Your task to perform on an android device: Open Google Chrome Image 0: 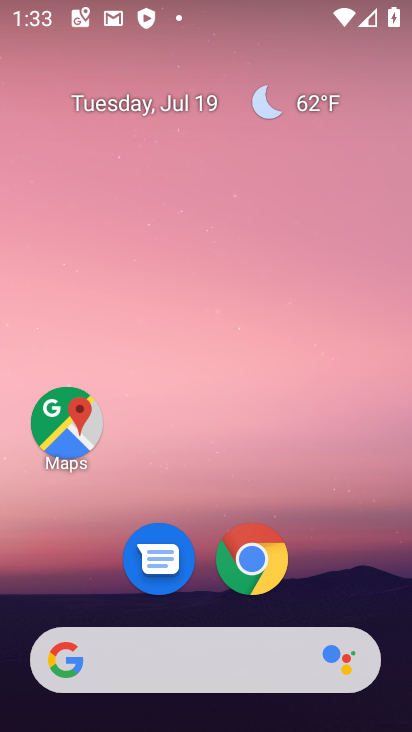
Step 0: drag from (210, 669) to (363, 175)
Your task to perform on an android device: Open Google Chrome Image 1: 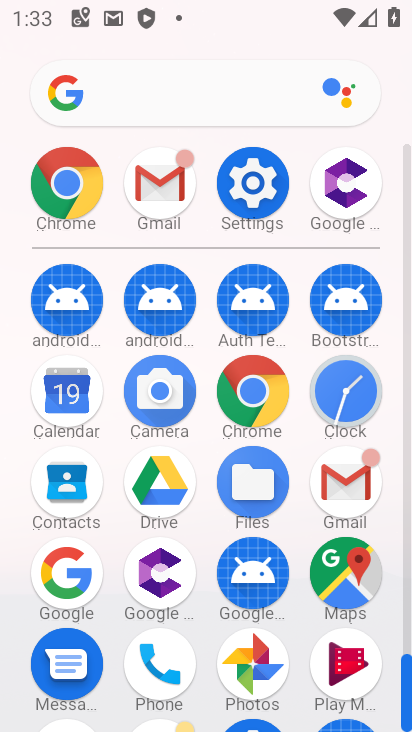
Step 1: click (54, 186)
Your task to perform on an android device: Open Google Chrome Image 2: 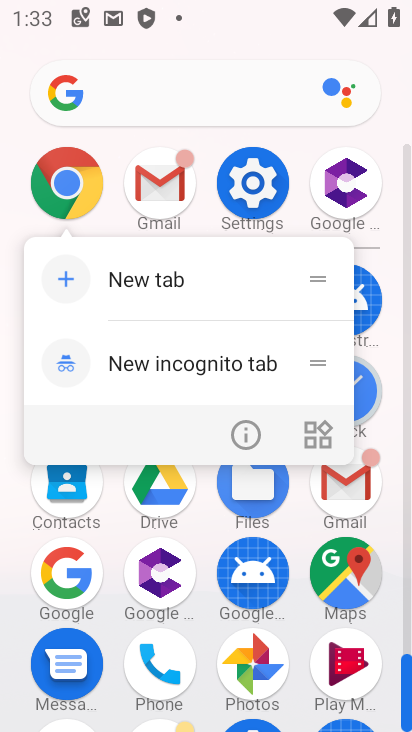
Step 2: click (71, 181)
Your task to perform on an android device: Open Google Chrome Image 3: 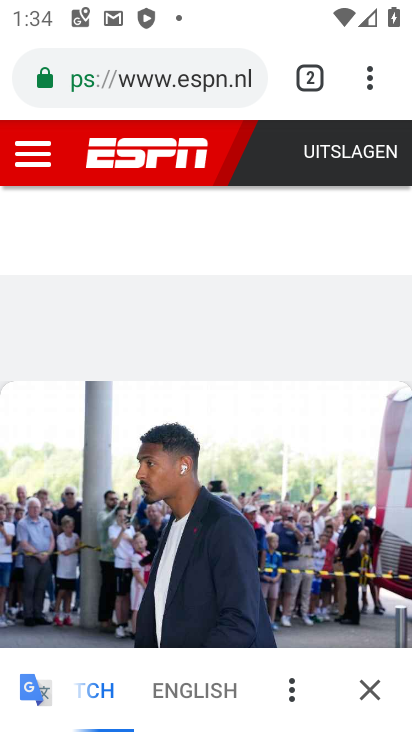
Step 3: task complete